Your task to perform on an android device: Show me recent news Image 0: 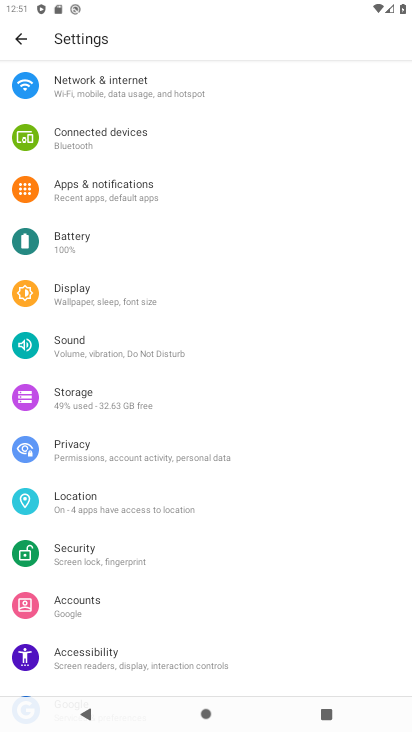
Step 0: press home button
Your task to perform on an android device: Show me recent news Image 1: 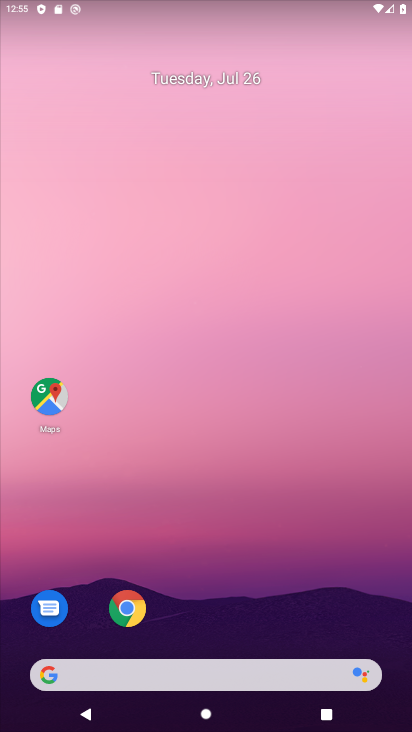
Step 1: click (185, 677)
Your task to perform on an android device: Show me recent news Image 2: 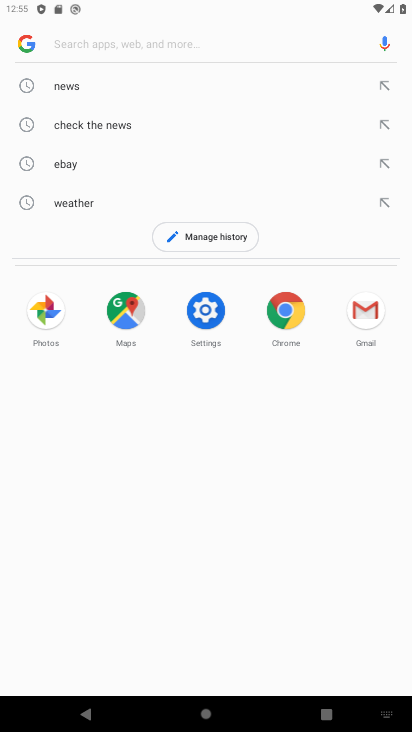
Step 2: type "Show me recent news"
Your task to perform on an android device: Show me recent news Image 3: 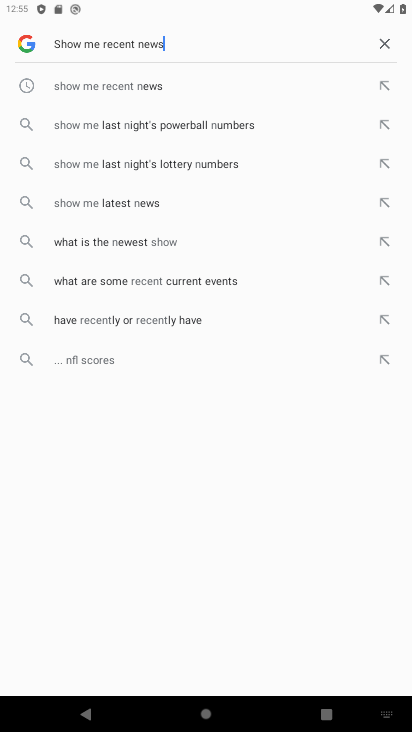
Step 3: press enter
Your task to perform on an android device: Show me recent news Image 4: 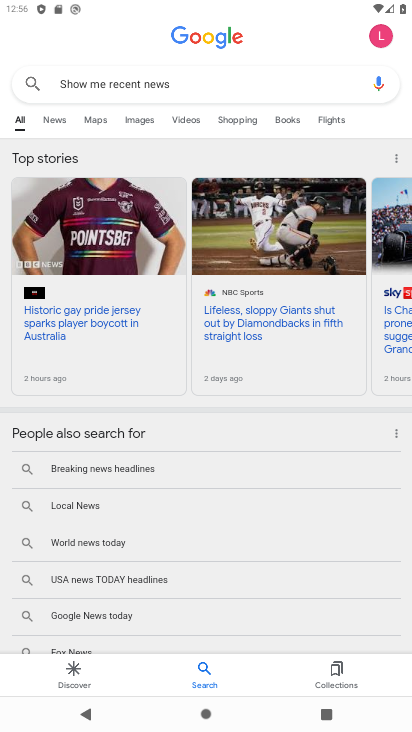
Step 4: task complete